Your task to perform on an android device: toggle data saver in the chrome app Image 0: 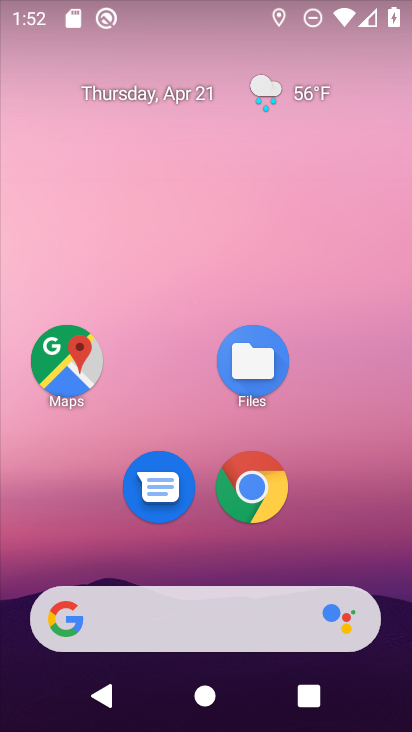
Step 0: drag from (348, 540) to (361, 154)
Your task to perform on an android device: toggle data saver in the chrome app Image 1: 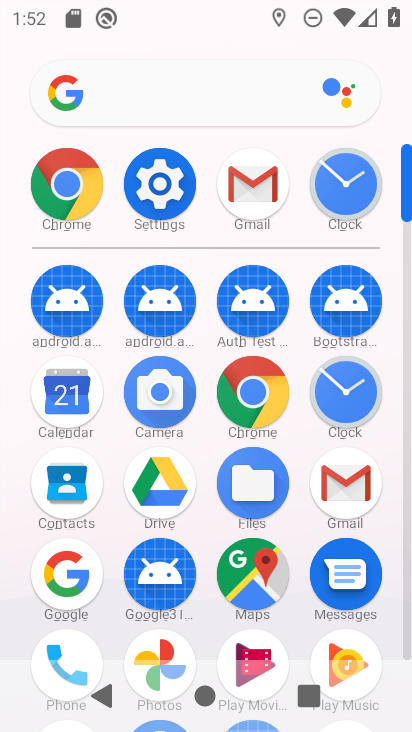
Step 1: click (264, 392)
Your task to perform on an android device: toggle data saver in the chrome app Image 2: 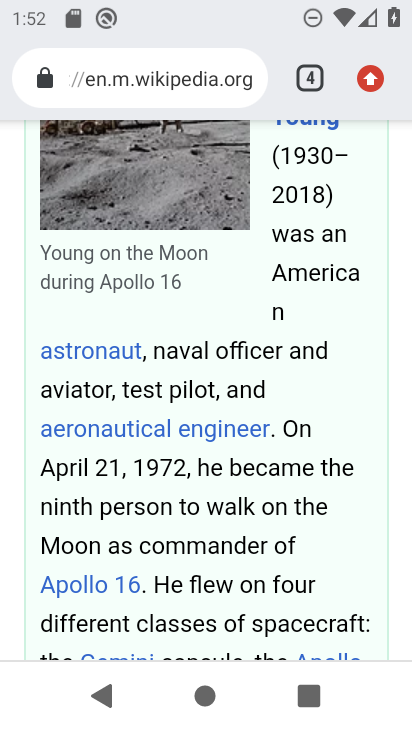
Step 2: click (304, 83)
Your task to perform on an android device: toggle data saver in the chrome app Image 3: 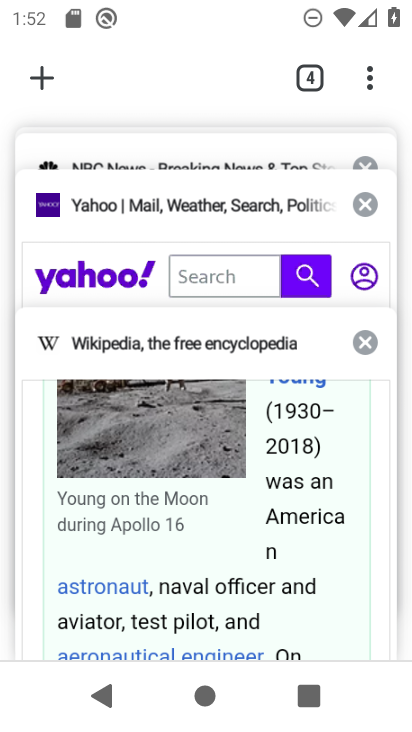
Step 3: drag from (365, 81) to (202, 302)
Your task to perform on an android device: toggle data saver in the chrome app Image 4: 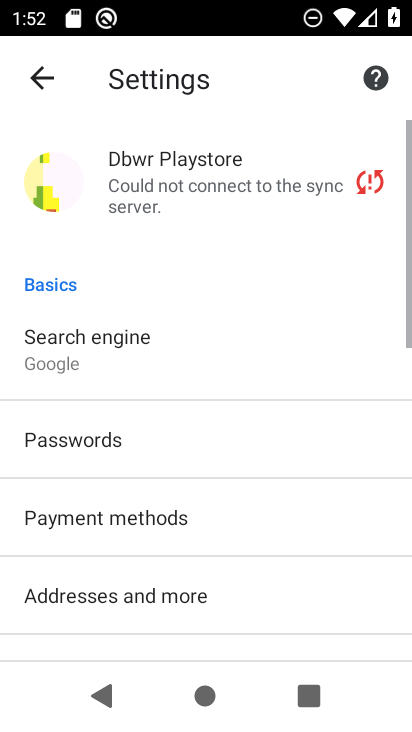
Step 4: drag from (274, 621) to (285, 292)
Your task to perform on an android device: toggle data saver in the chrome app Image 5: 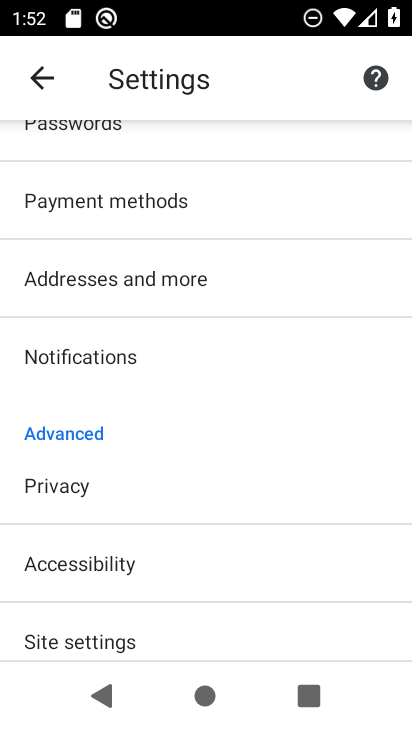
Step 5: drag from (253, 534) to (306, 239)
Your task to perform on an android device: toggle data saver in the chrome app Image 6: 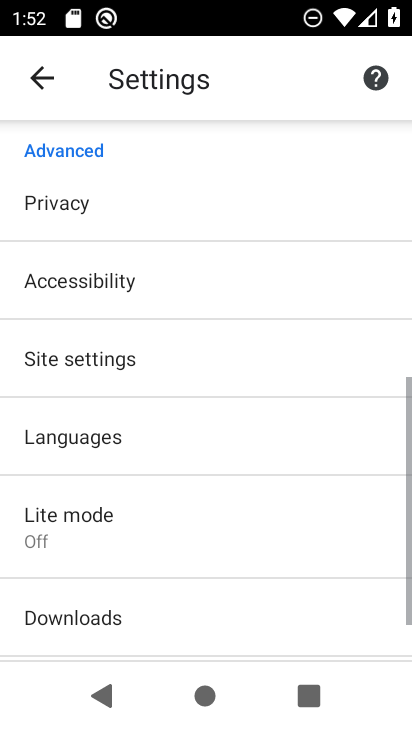
Step 6: click (166, 546)
Your task to perform on an android device: toggle data saver in the chrome app Image 7: 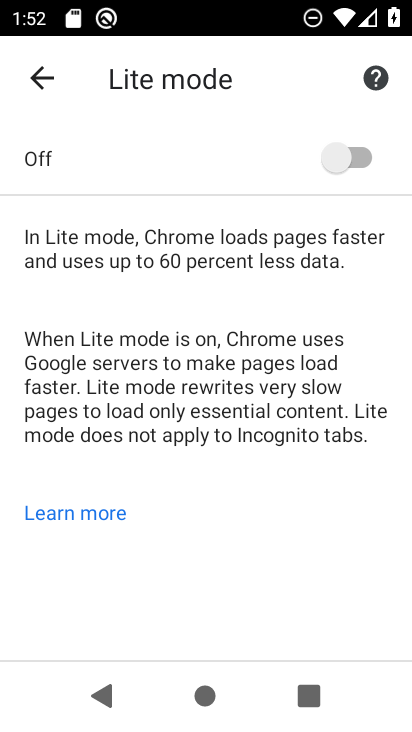
Step 7: click (364, 160)
Your task to perform on an android device: toggle data saver in the chrome app Image 8: 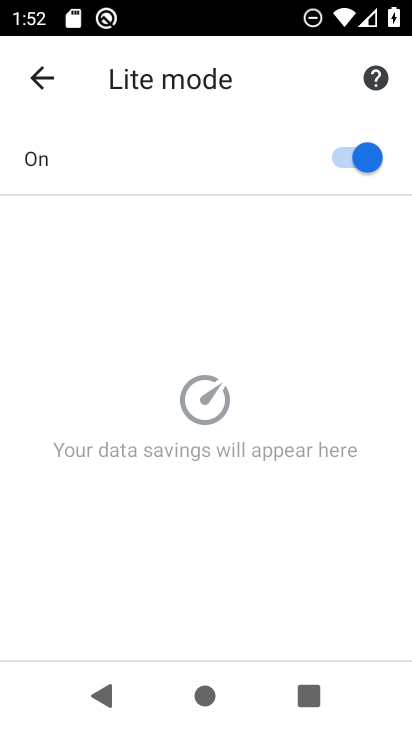
Step 8: task complete